Your task to perform on an android device: Open accessibility settings Image 0: 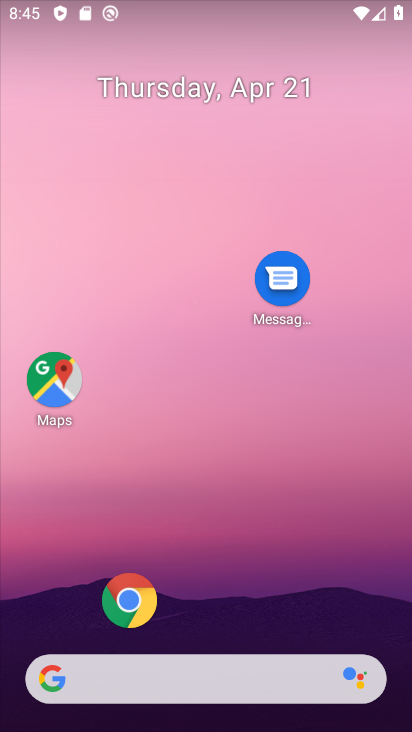
Step 0: drag from (58, 437) to (154, 138)
Your task to perform on an android device: Open accessibility settings Image 1: 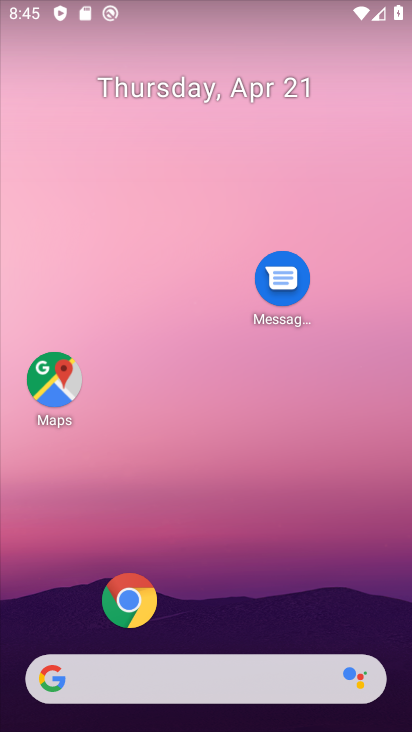
Step 1: click (126, 604)
Your task to perform on an android device: Open accessibility settings Image 2: 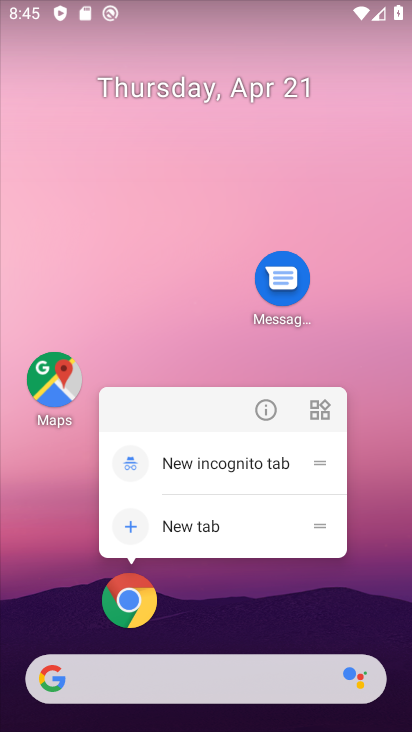
Step 2: click (269, 418)
Your task to perform on an android device: Open accessibility settings Image 3: 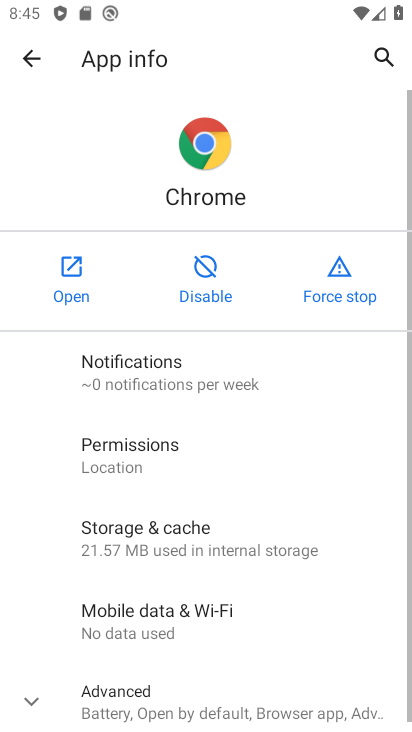
Step 3: click (62, 274)
Your task to perform on an android device: Open accessibility settings Image 4: 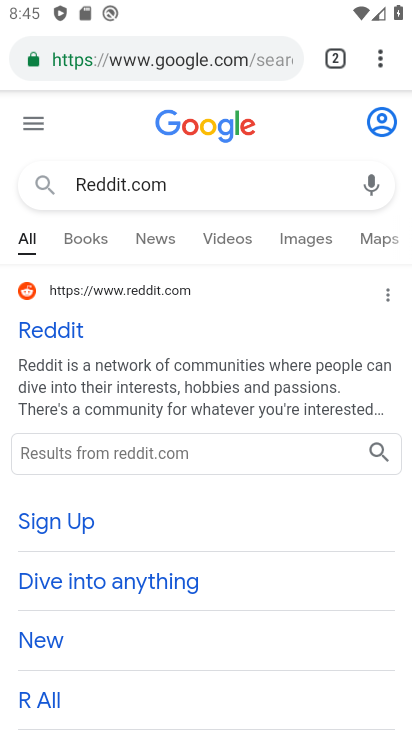
Step 4: drag from (379, 57) to (237, 558)
Your task to perform on an android device: Open accessibility settings Image 5: 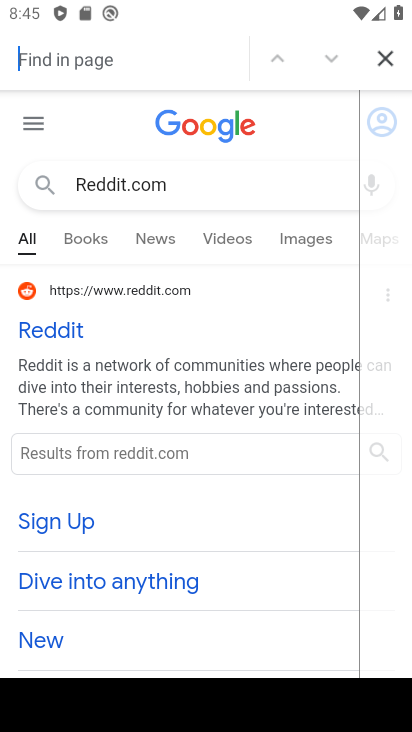
Step 5: click (389, 49)
Your task to perform on an android device: Open accessibility settings Image 6: 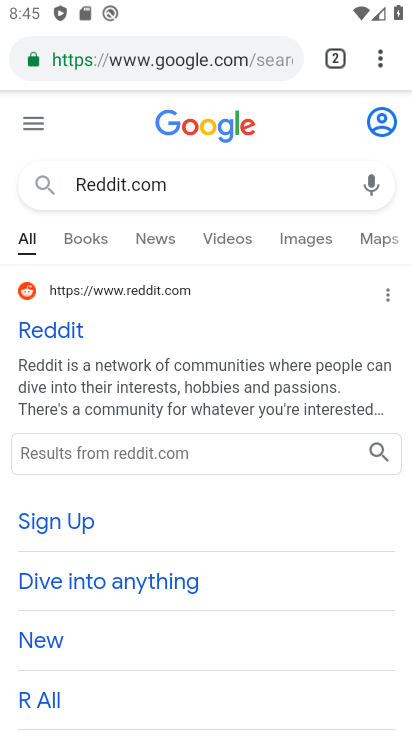
Step 6: click (387, 52)
Your task to perform on an android device: Open accessibility settings Image 7: 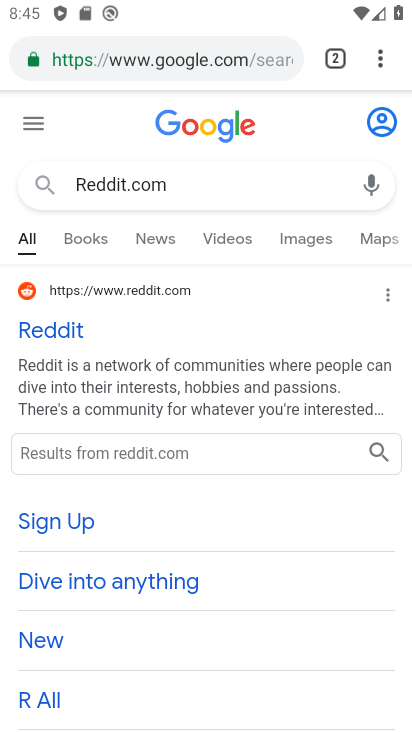
Step 7: click (376, 63)
Your task to perform on an android device: Open accessibility settings Image 8: 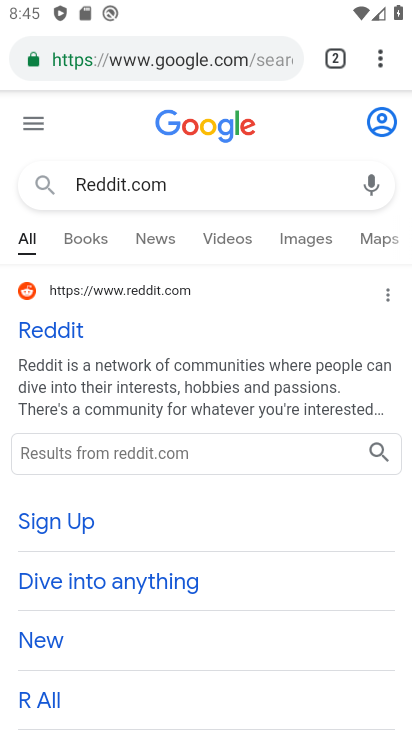
Step 8: click (382, 47)
Your task to perform on an android device: Open accessibility settings Image 9: 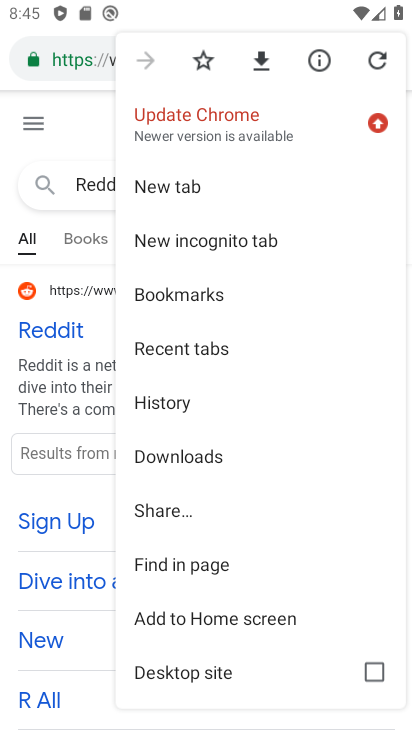
Step 9: drag from (190, 588) to (308, 216)
Your task to perform on an android device: Open accessibility settings Image 10: 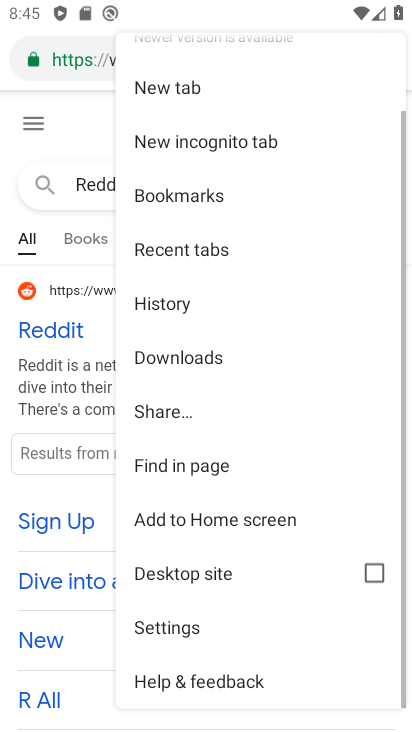
Step 10: click (183, 621)
Your task to perform on an android device: Open accessibility settings Image 11: 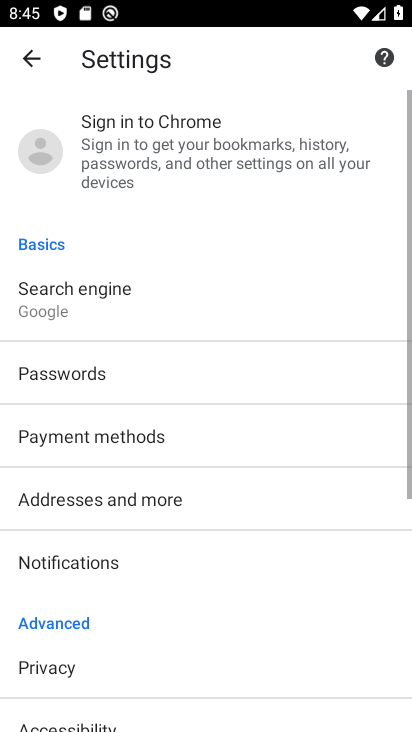
Step 11: drag from (143, 686) to (212, 379)
Your task to perform on an android device: Open accessibility settings Image 12: 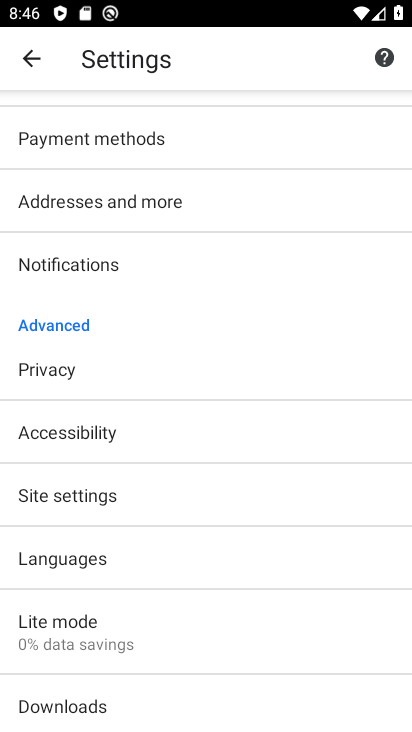
Step 12: click (129, 432)
Your task to perform on an android device: Open accessibility settings Image 13: 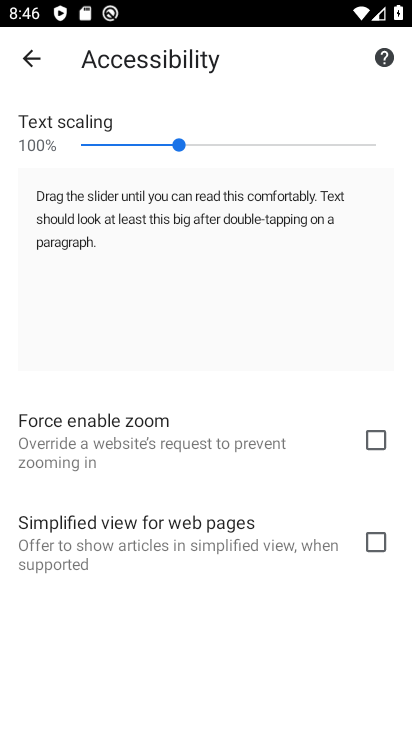
Step 13: task complete